Your task to perform on an android device: turn off wifi Image 0: 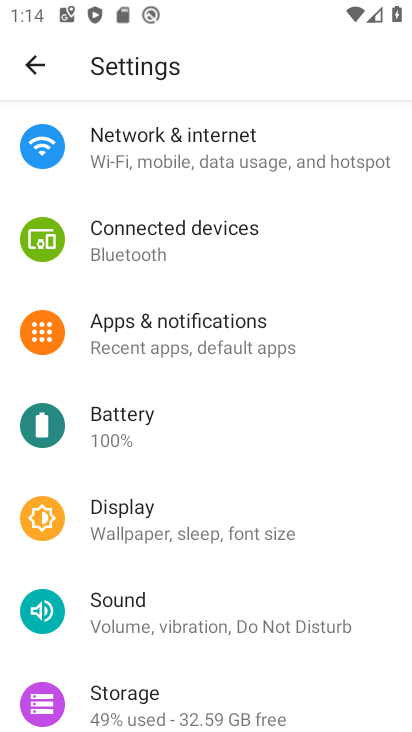
Step 0: drag from (349, 9) to (308, 453)
Your task to perform on an android device: turn off wifi Image 1: 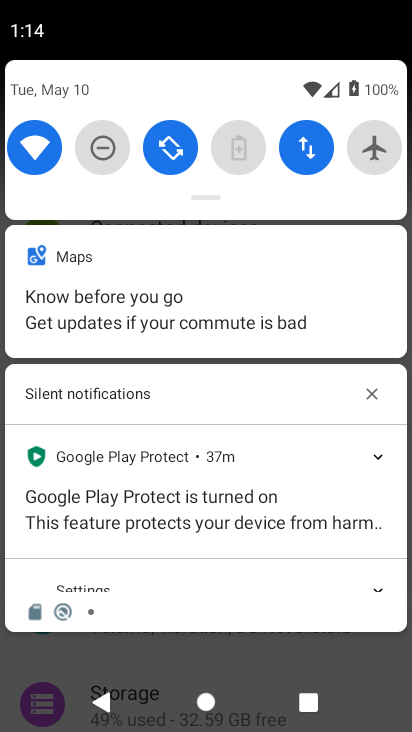
Step 1: click (34, 143)
Your task to perform on an android device: turn off wifi Image 2: 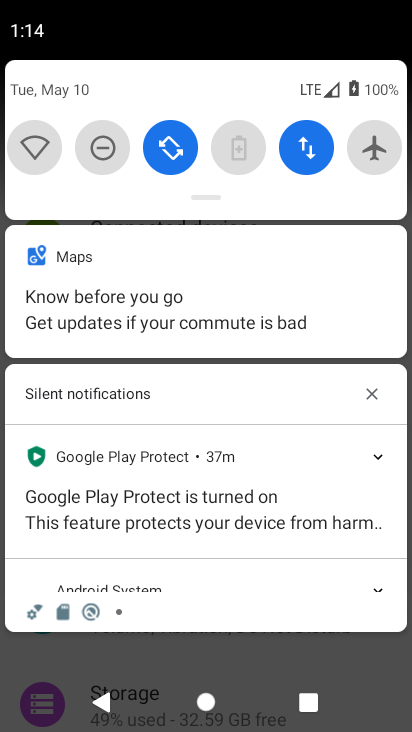
Step 2: task complete